Your task to perform on an android device: remove spam from my inbox in the gmail app Image 0: 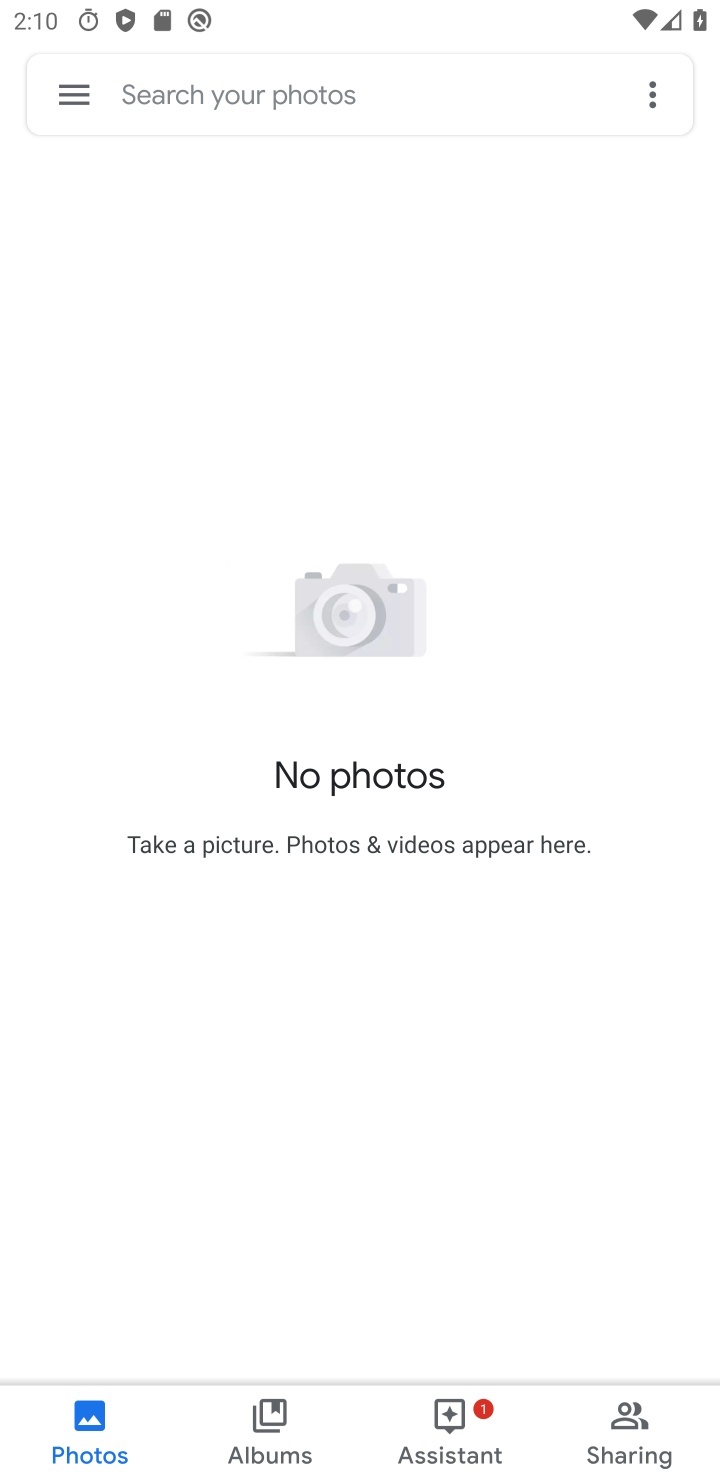
Step 0: drag from (352, 1013) to (344, 435)
Your task to perform on an android device: remove spam from my inbox in the gmail app Image 1: 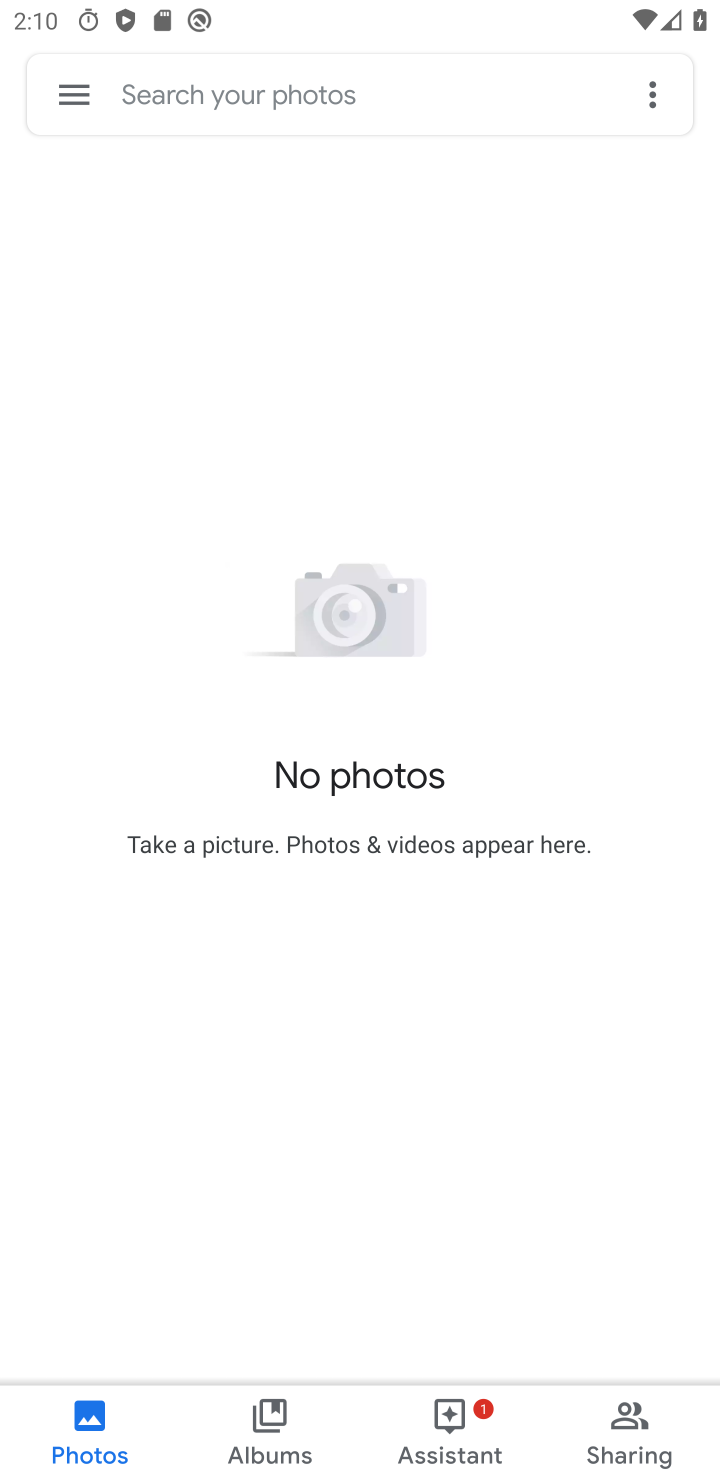
Step 1: press home button
Your task to perform on an android device: remove spam from my inbox in the gmail app Image 2: 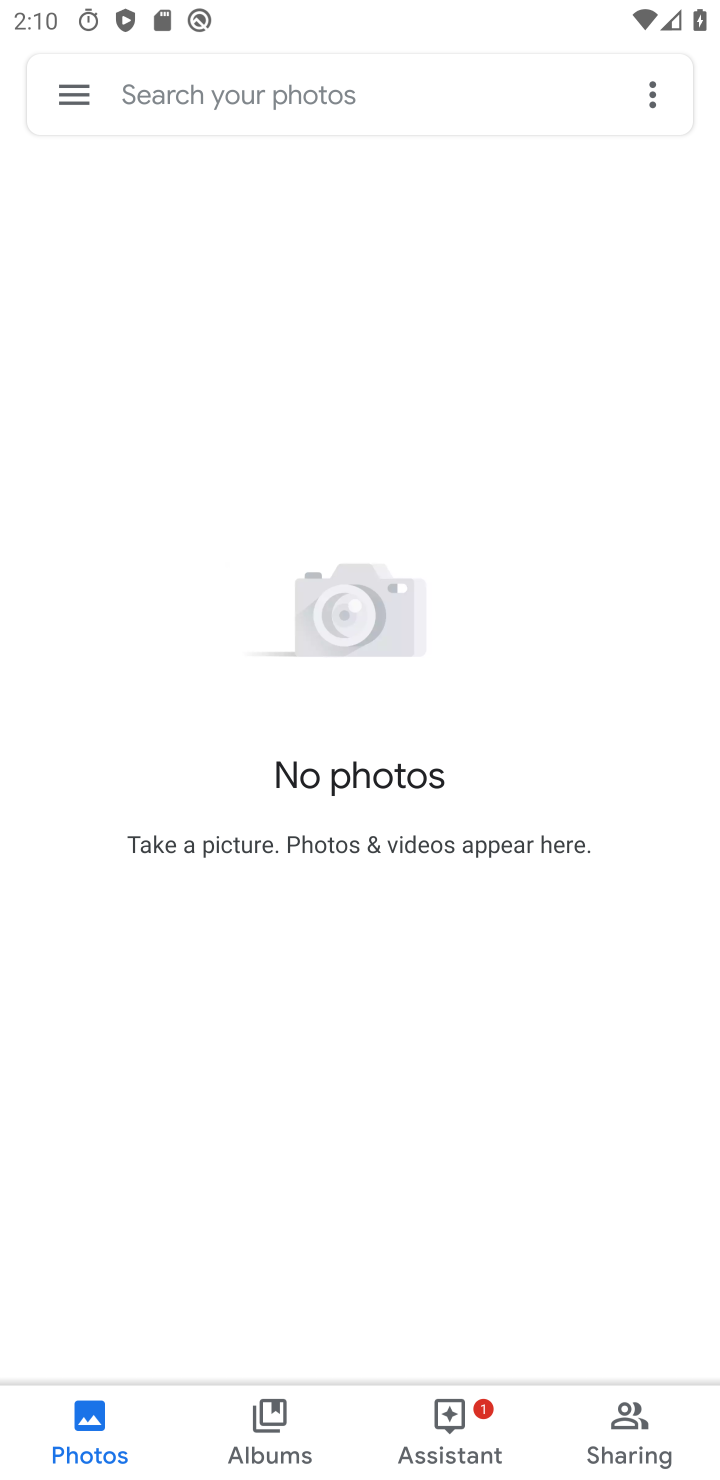
Step 2: drag from (399, 424) to (419, 318)
Your task to perform on an android device: remove spam from my inbox in the gmail app Image 3: 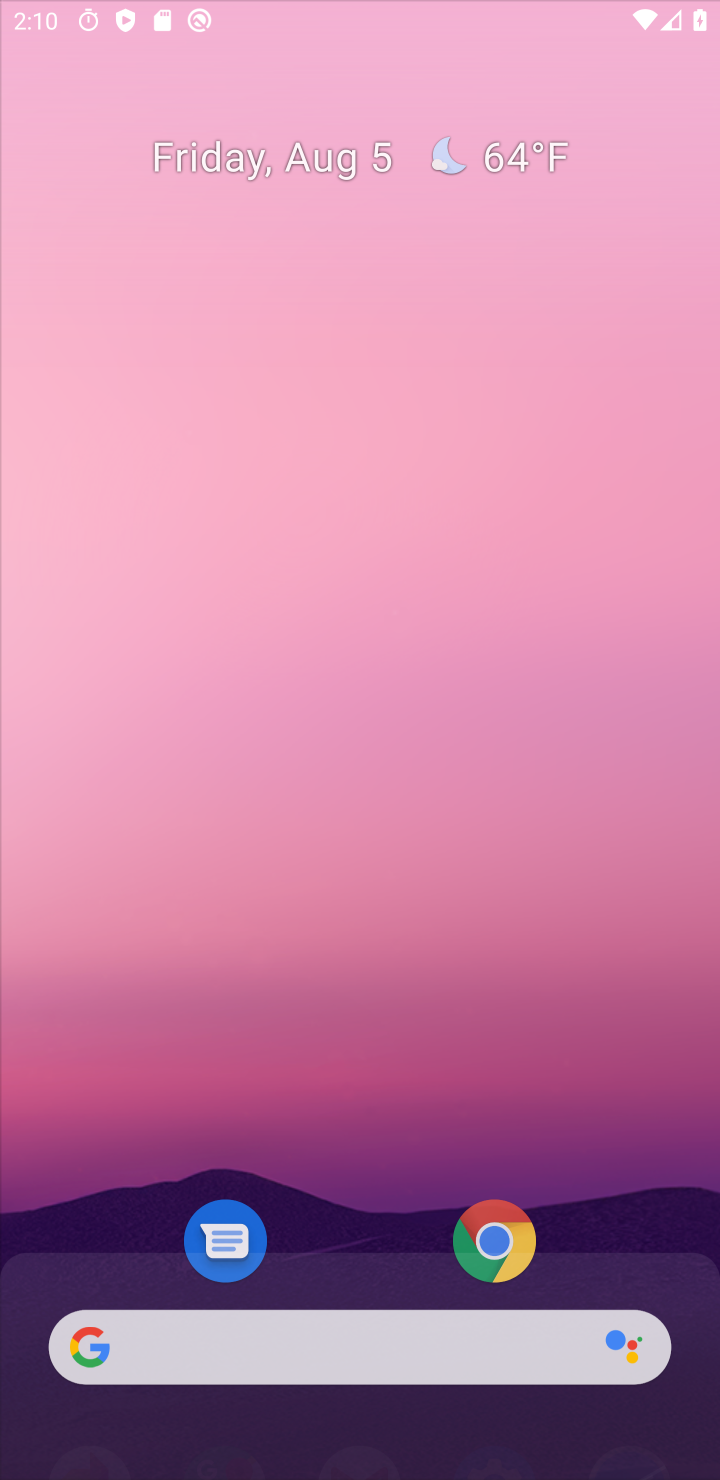
Step 3: drag from (346, 1102) to (460, 328)
Your task to perform on an android device: remove spam from my inbox in the gmail app Image 4: 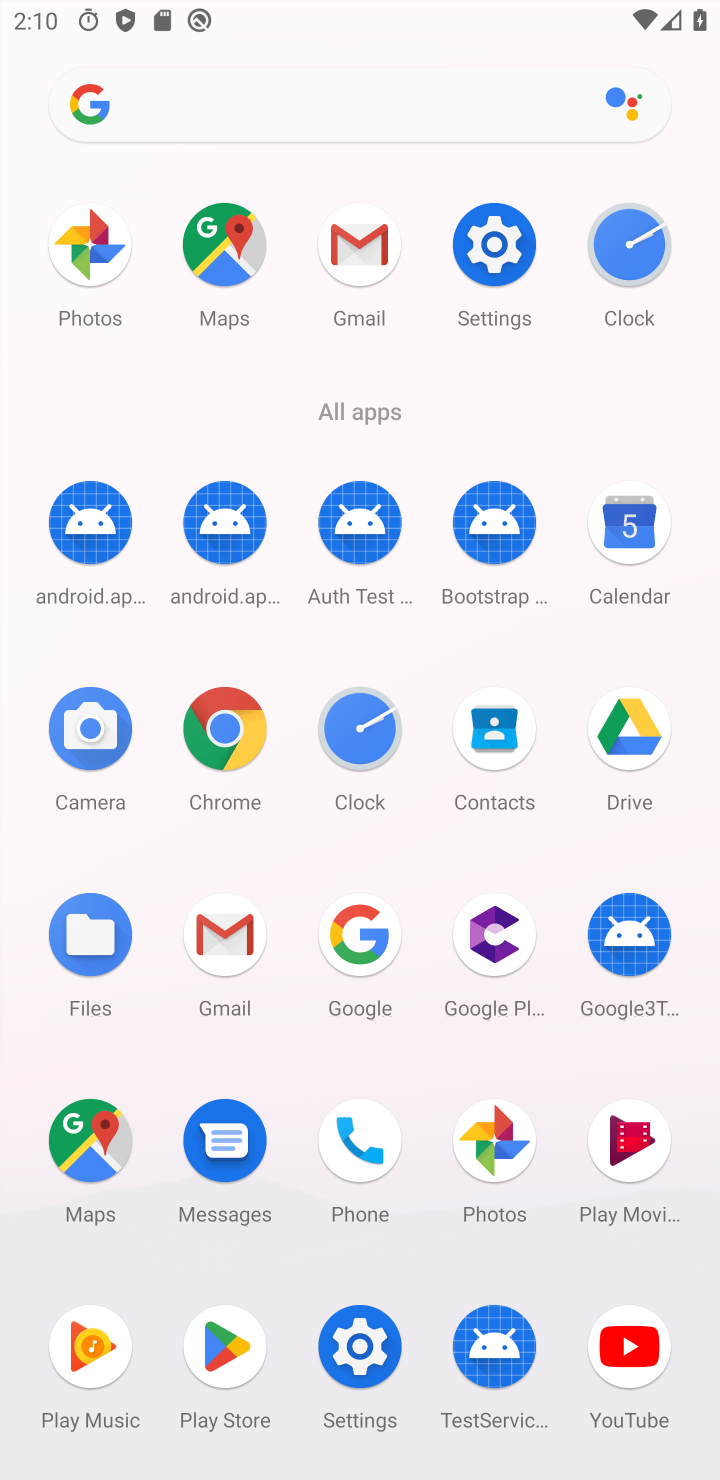
Step 4: click (221, 928)
Your task to perform on an android device: remove spam from my inbox in the gmail app Image 5: 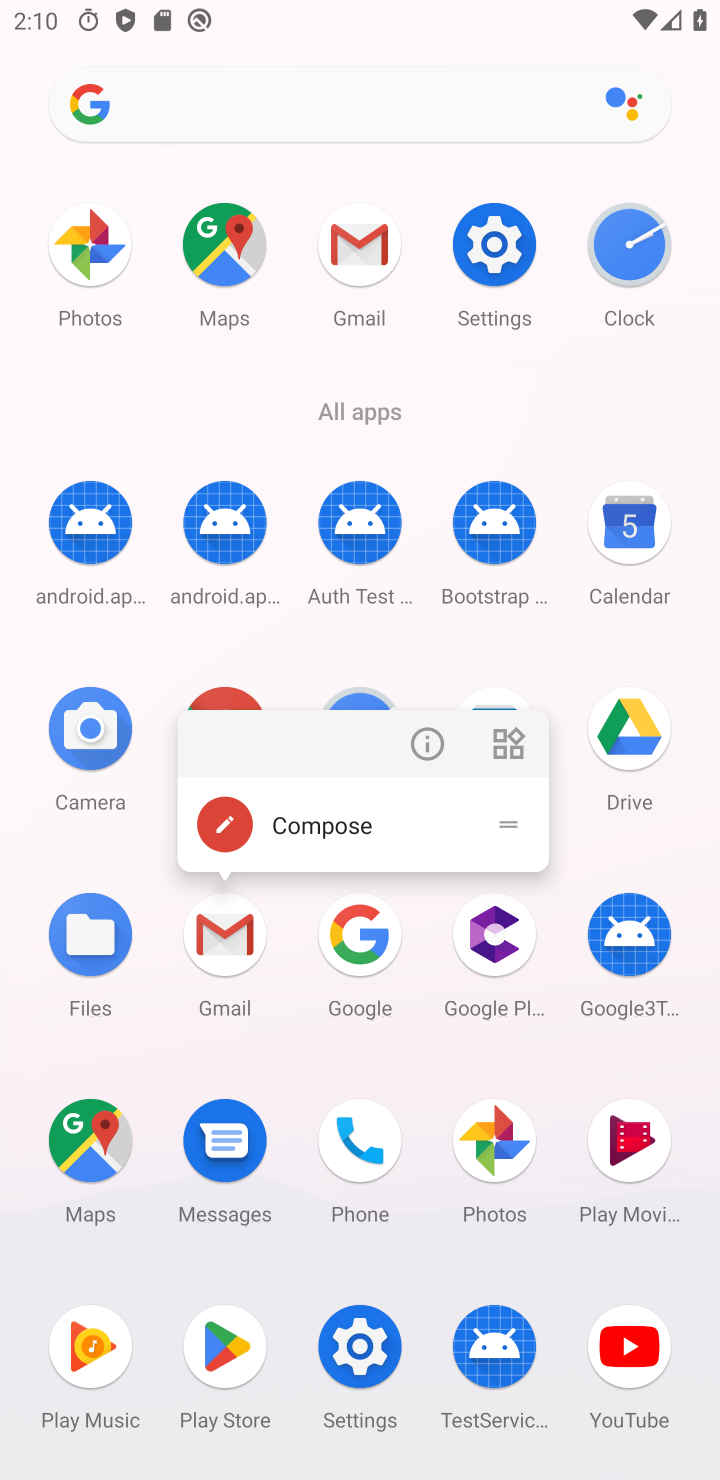
Step 5: click (424, 758)
Your task to perform on an android device: remove spam from my inbox in the gmail app Image 6: 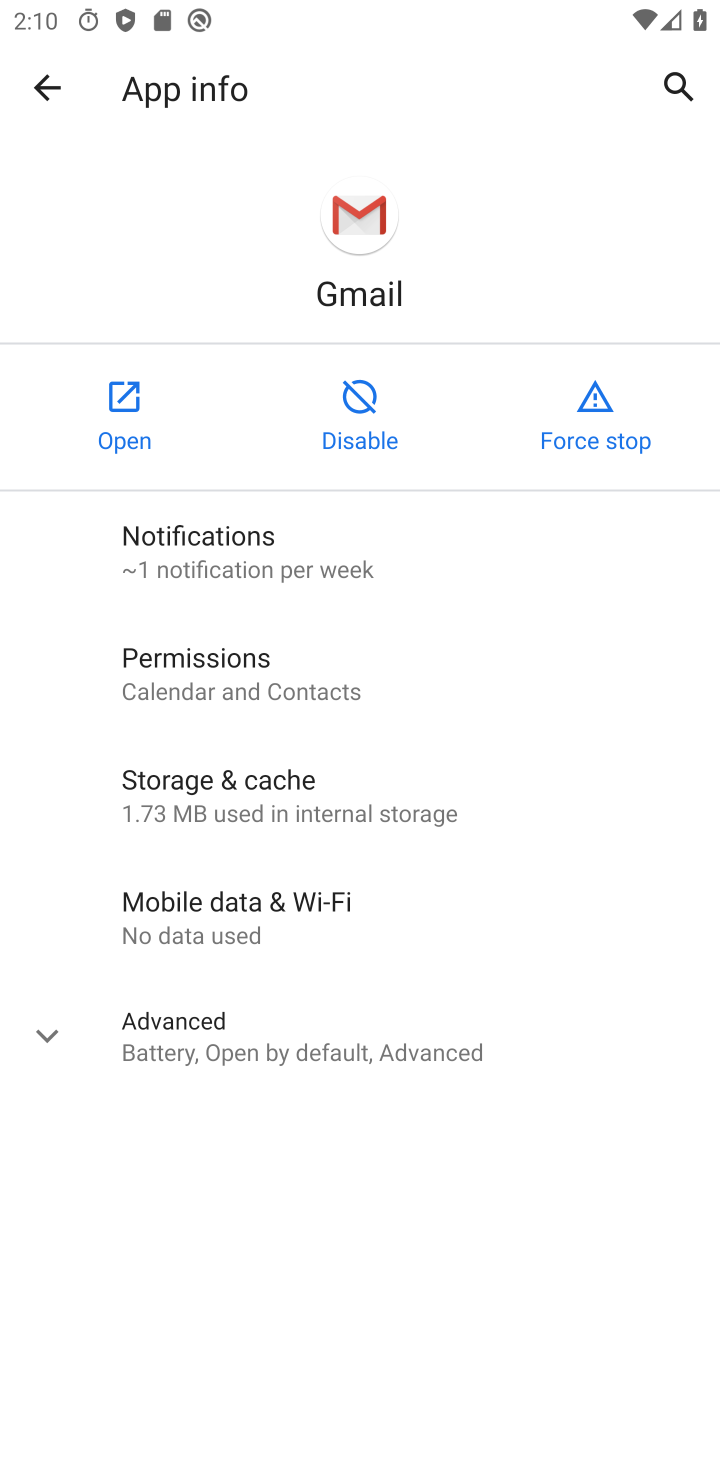
Step 6: click (87, 418)
Your task to perform on an android device: remove spam from my inbox in the gmail app Image 7: 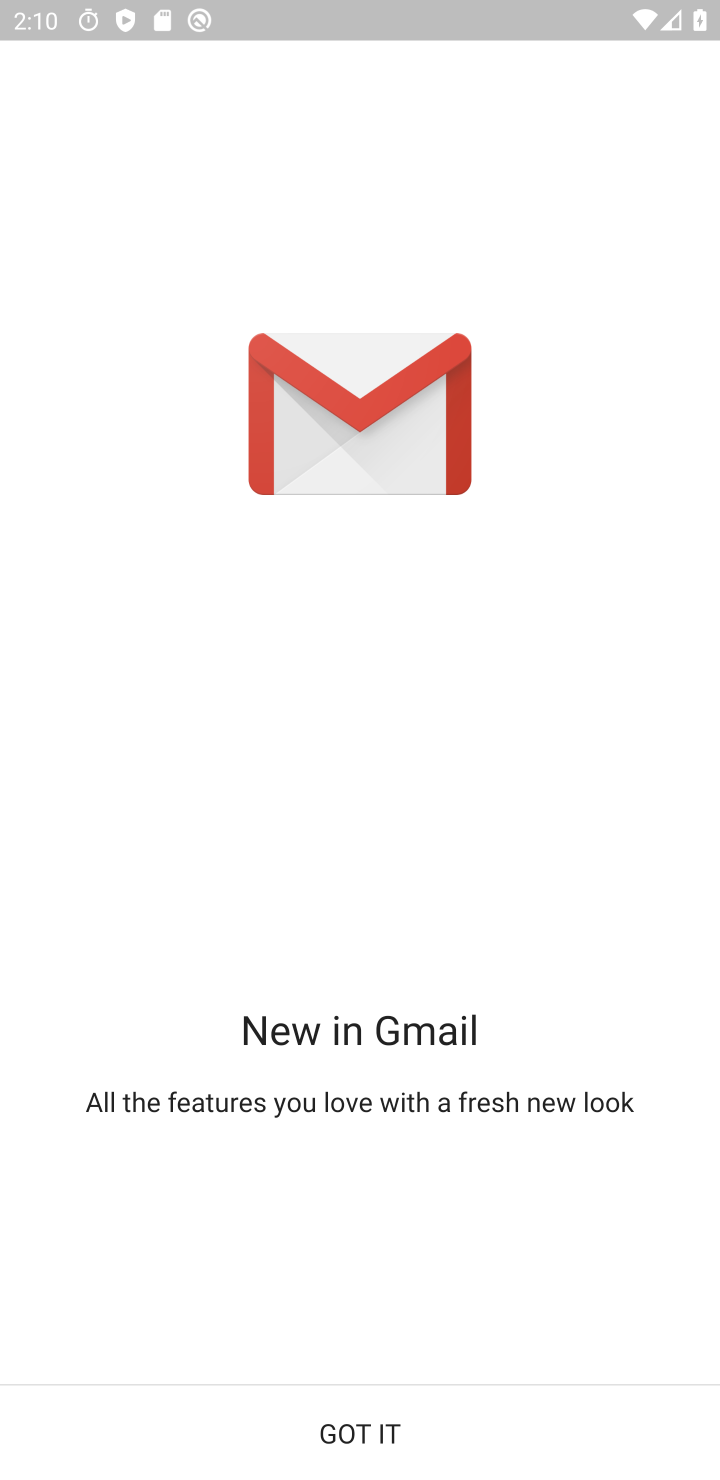
Step 7: click (321, 1408)
Your task to perform on an android device: remove spam from my inbox in the gmail app Image 8: 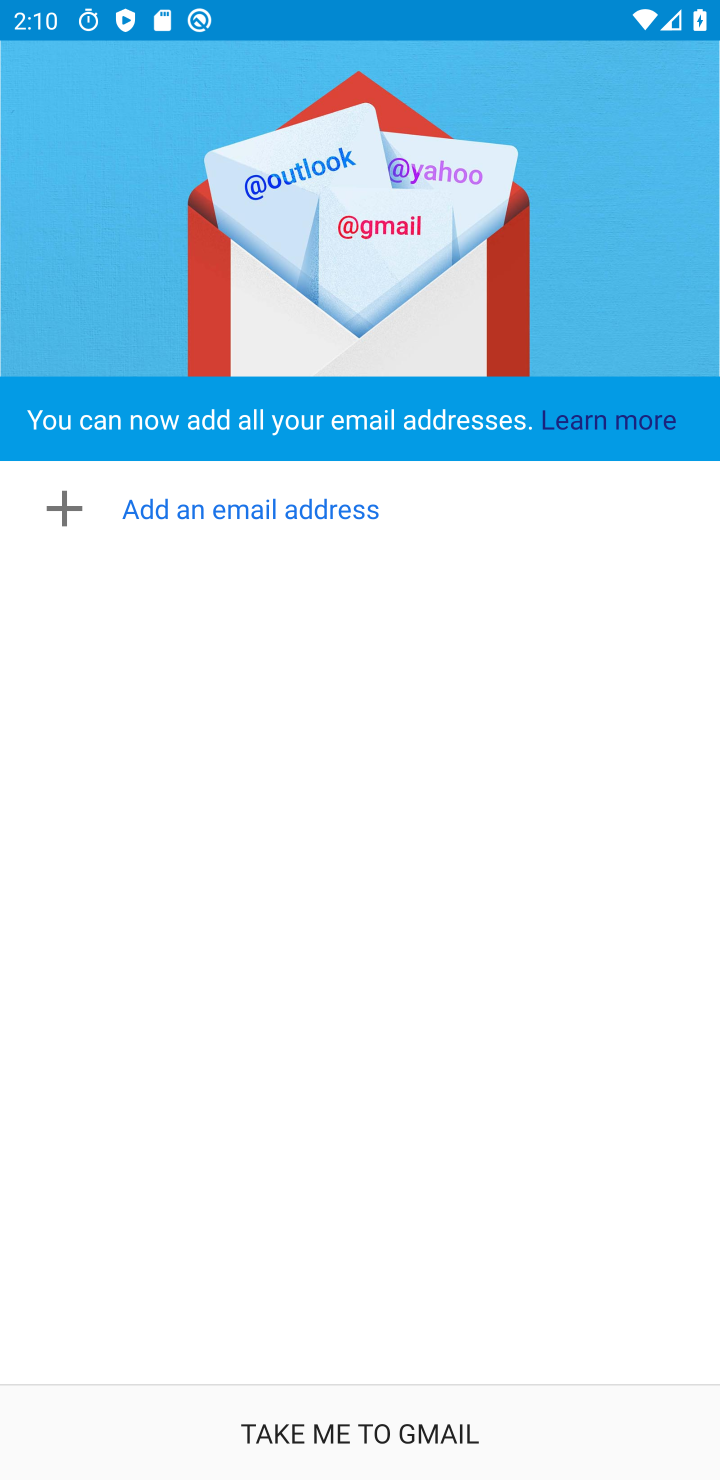
Step 8: click (264, 1477)
Your task to perform on an android device: remove spam from my inbox in the gmail app Image 9: 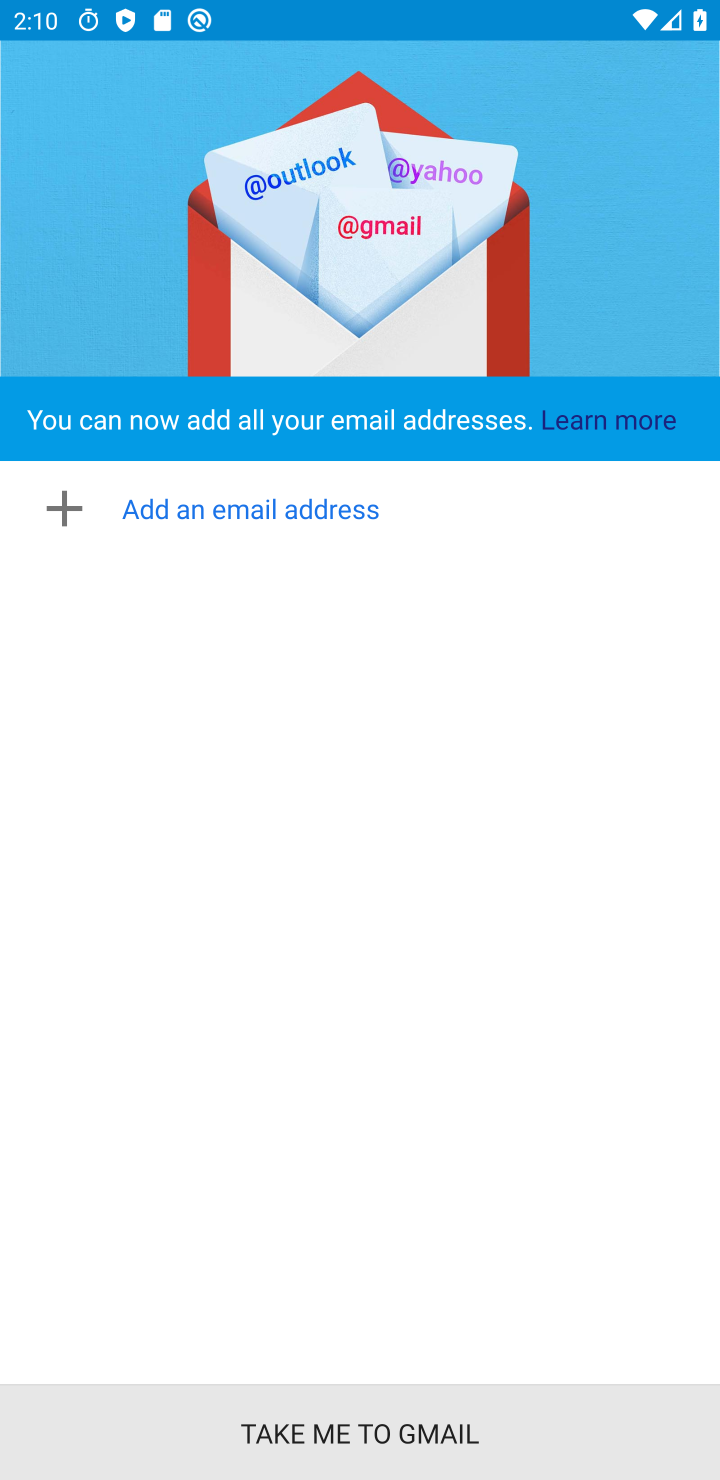
Step 9: click (302, 1447)
Your task to perform on an android device: remove spam from my inbox in the gmail app Image 10: 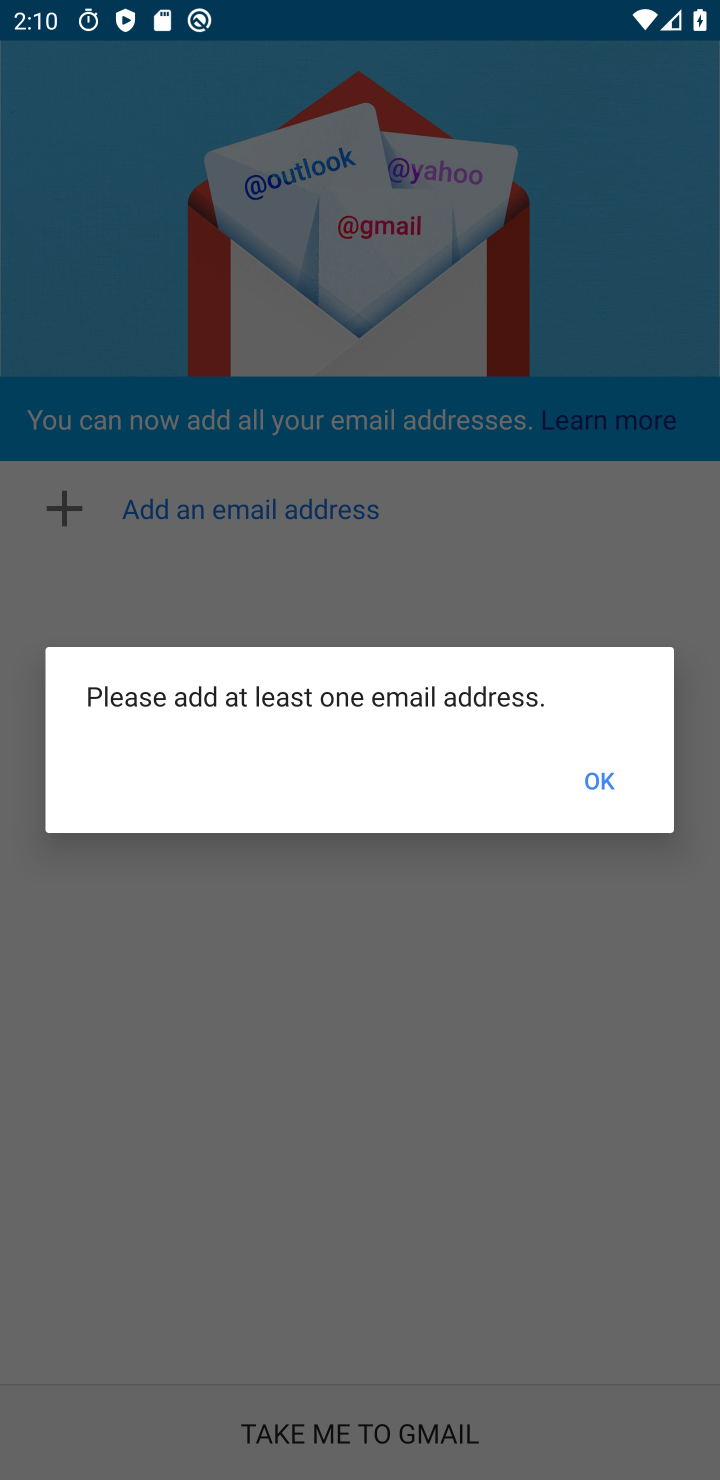
Step 10: click (598, 787)
Your task to perform on an android device: remove spam from my inbox in the gmail app Image 11: 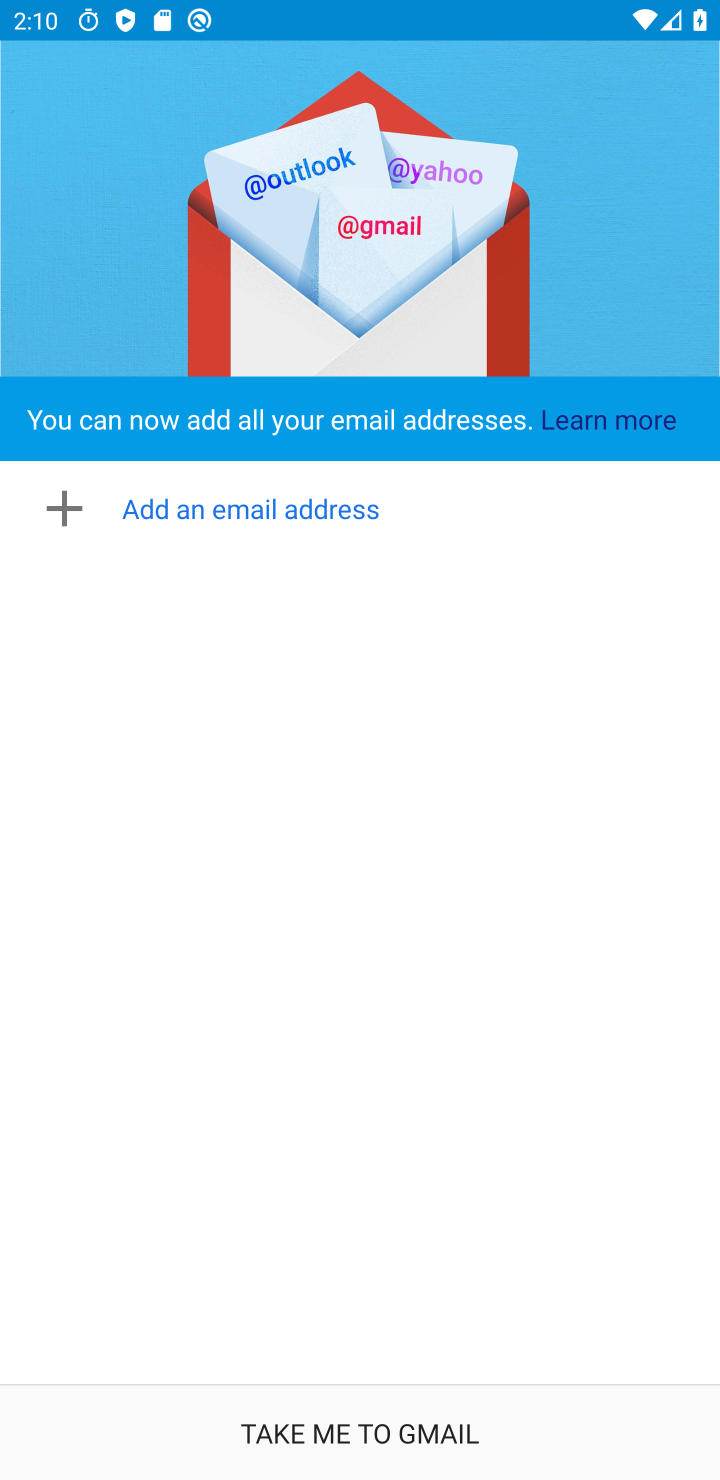
Step 11: drag from (511, 1027) to (594, 1331)
Your task to perform on an android device: remove spam from my inbox in the gmail app Image 12: 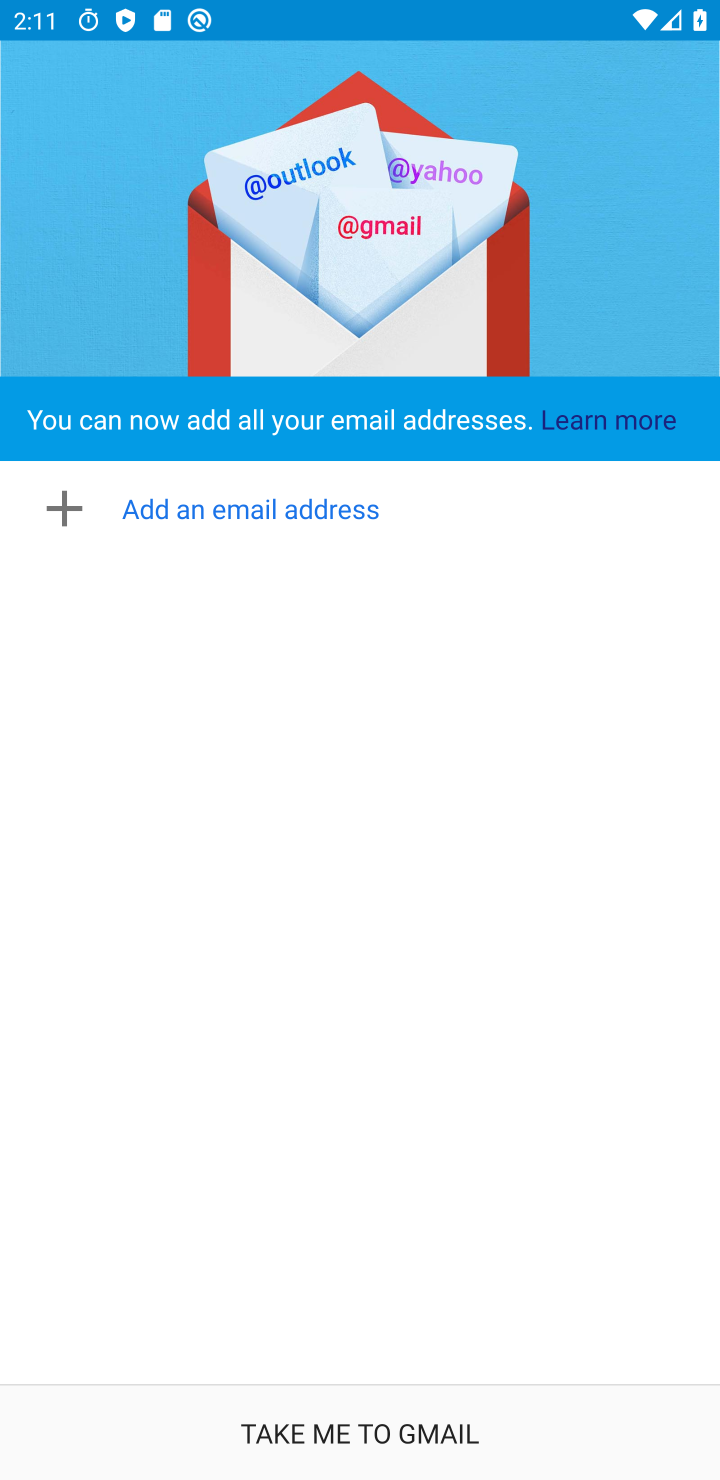
Step 12: drag from (377, 1473) to (307, 1411)
Your task to perform on an android device: remove spam from my inbox in the gmail app Image 13: 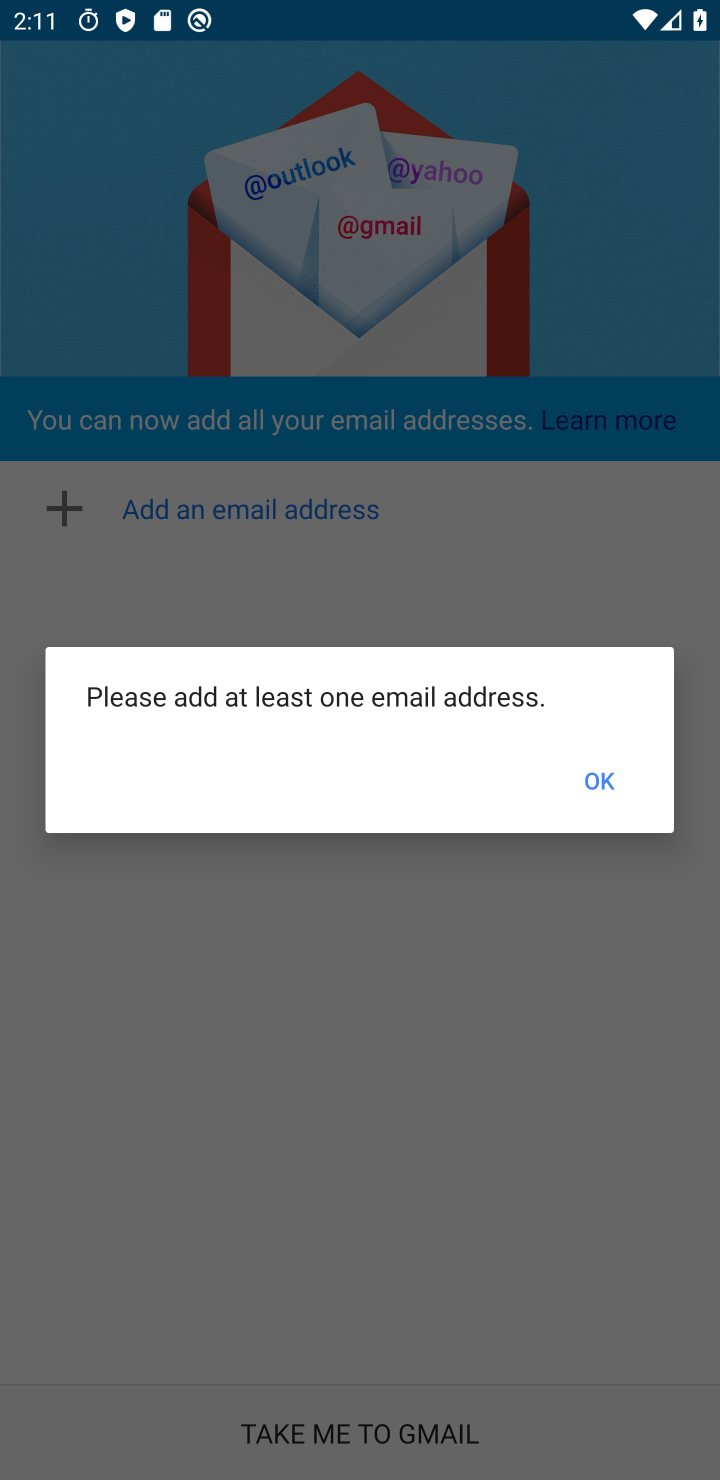
Step 13: click (598, 772)
Your task to perform on an android device: remove spam from my inbox in the gmail app Image 14: 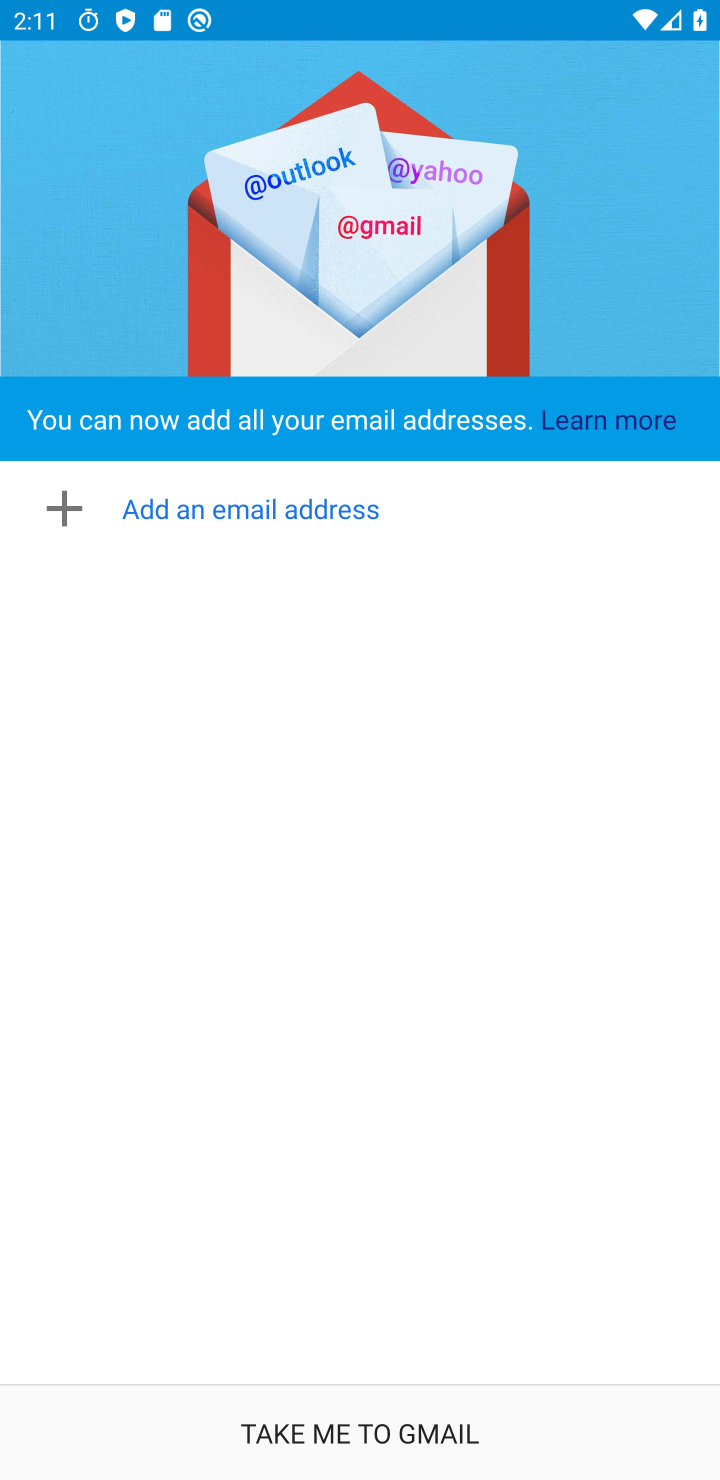
Step 14: task complete